Your task to perform on an android device: turn vacation reply on in the gmail app Image 0: 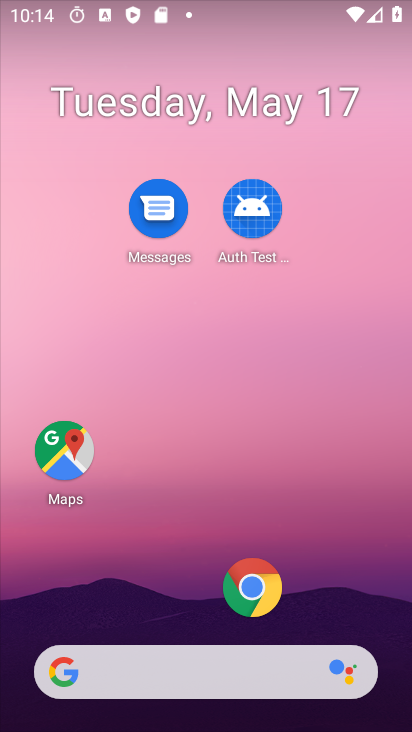
Step 0: drag from (220, 543) to (234, 109)
Your task to perform on an android device: turn vacation reply on in the gmail app Image 1: 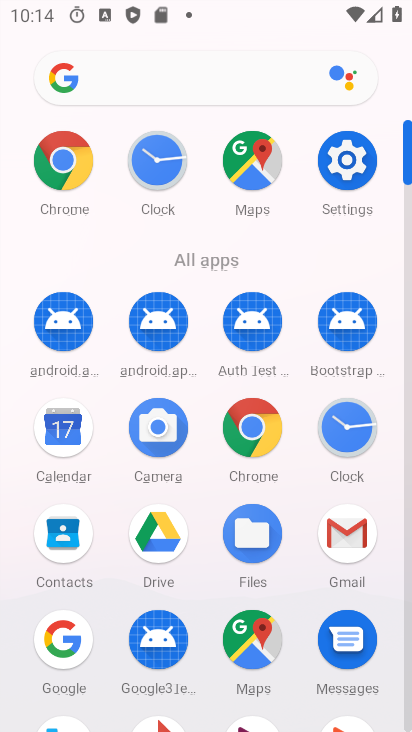
Step 1: click (374, 529)
Your task to perform on an android device: turn vacation reply on in the gmail app Image 2: 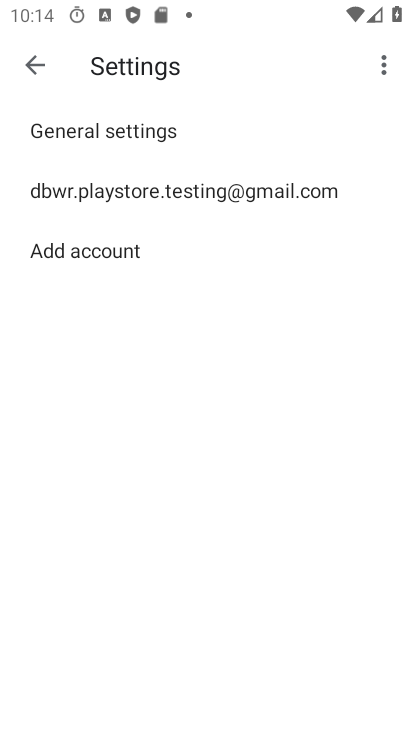
Step 2: click (161, 196)
Your task to perform on an android device: turn vacation reply on in the gmail app Image 3: 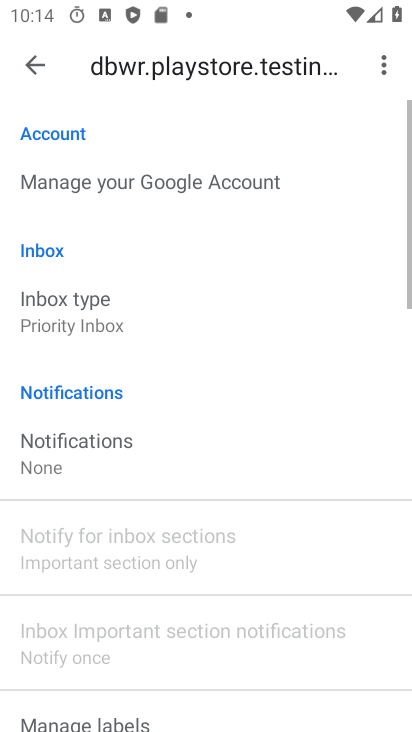
Step 3: drag from (181, 570) to (217, 153)
Your task to perform on an android device: turn vacation reply on in the gmail app Image 4: 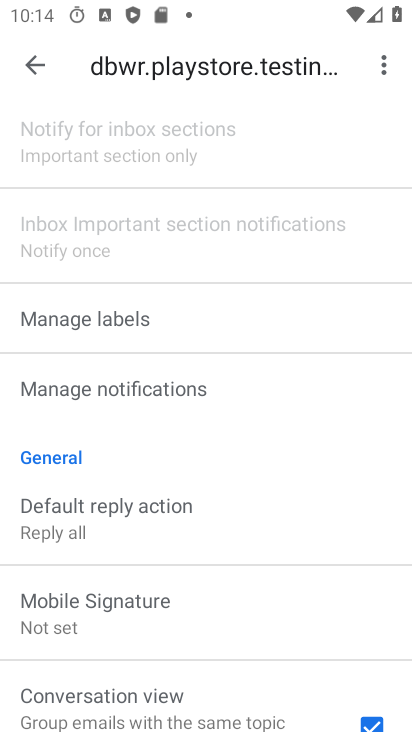
Step 4: drag from (216, 593) to (285, 193)
Your task to perform on an android device: turn vacation reply on in the gmail app Image 5: 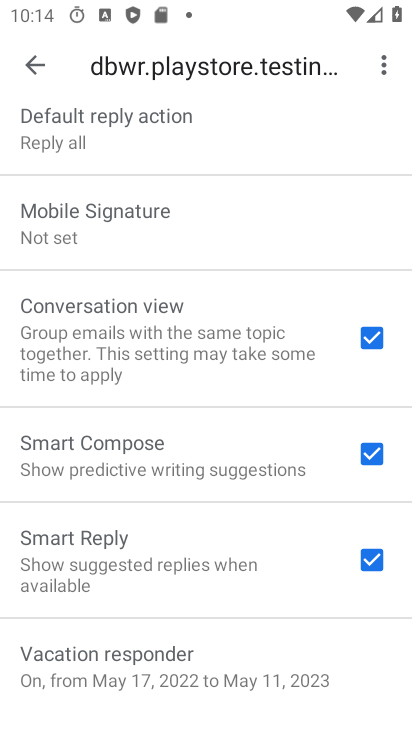
Step 5: click (248, 674)
Your task to perform on an android device: turn vacation reply on in the gmail app Image 6: 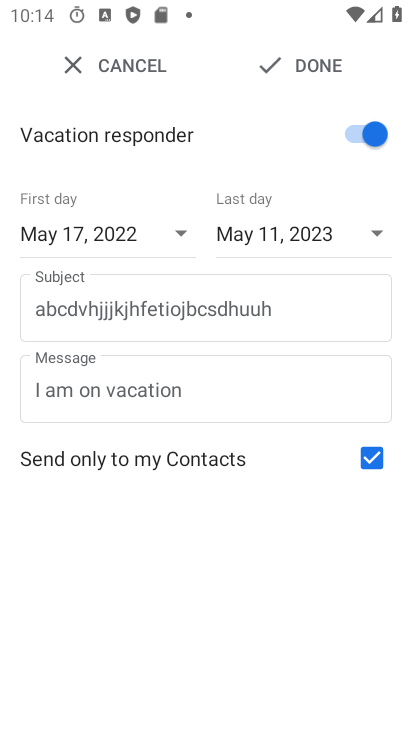
Step 6: click (328, 71)
Your task to perform on an android device: turn vacation reply on in the gmail app Image 7: 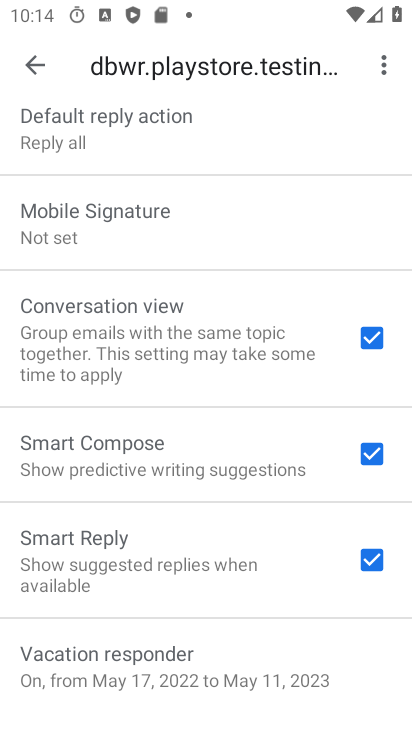
Step 7: task complete